Your task to perform on an android device: toggle priority inbox in the gmail app Image 0: 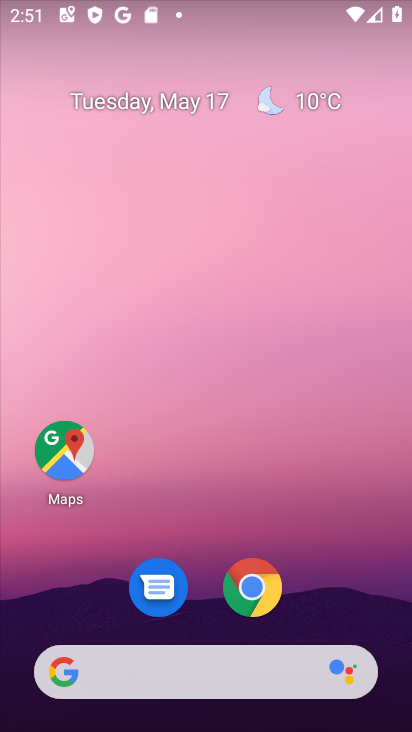
Step 0: drag from (321, 569) to (238, 59)
Your task to perform on an android device: toggle priority inbox in the gmail app Image 1: 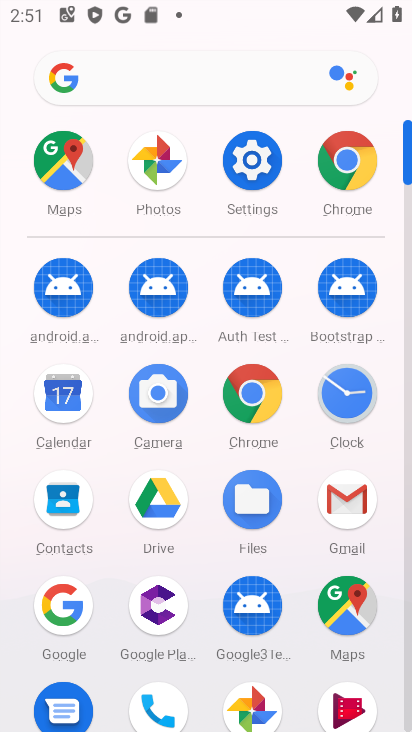
Step 1: drag from (0, 528) to (3, 238)
Your task to perform on an android device: toggle priority inbox in the gmail app Image 2: 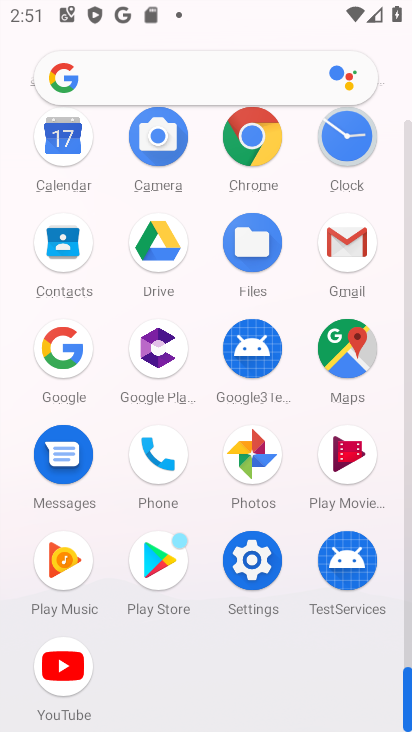
Step 2: click (349, 233)
Your task to perform on an android device: toggle priority inbox in the gmail app Image 3: 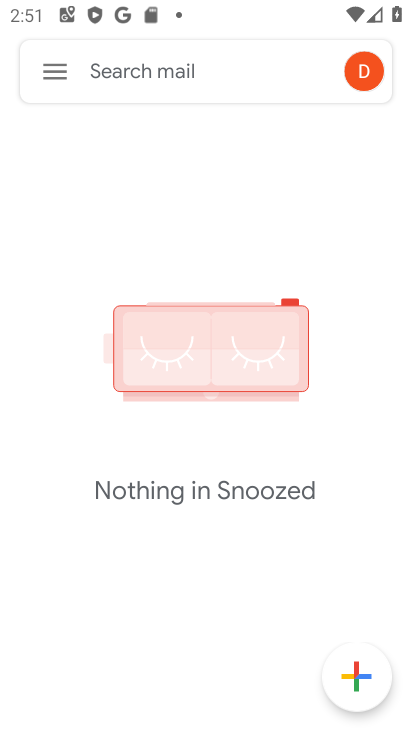
Step 3: click (56, 69)
Your task to perform on an android device: toggle priority inbox in the gmail app Image 4: 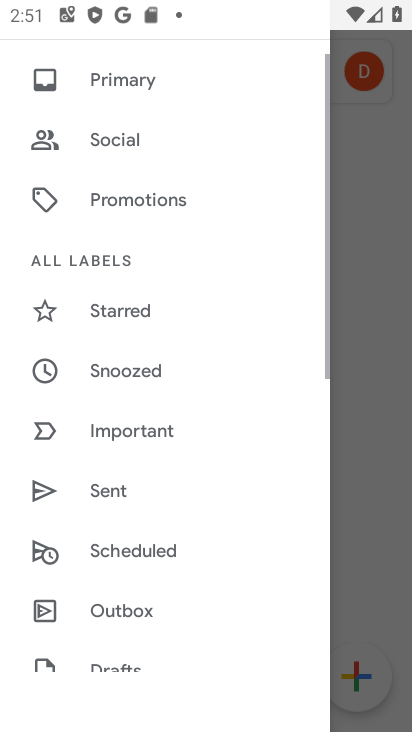
Step 4: drag from (133, 630) to (182, 94)
Your task to perform on an android device: toggle priority inbox in the gmail app Image 5: 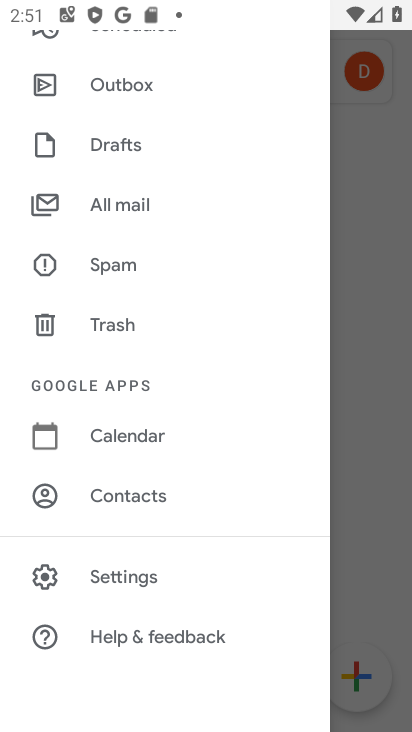
Step 5: click (117, 566)
Your task to perform on an android device: toggle priority inbox in the gmail app Image 6: 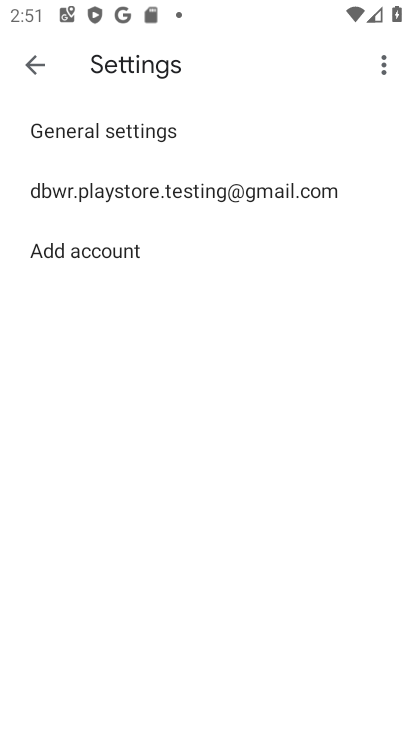
Step 6: click (169, 189)
Your task to perform on an android device: toggle priority inbox in the gmail app Image 7: 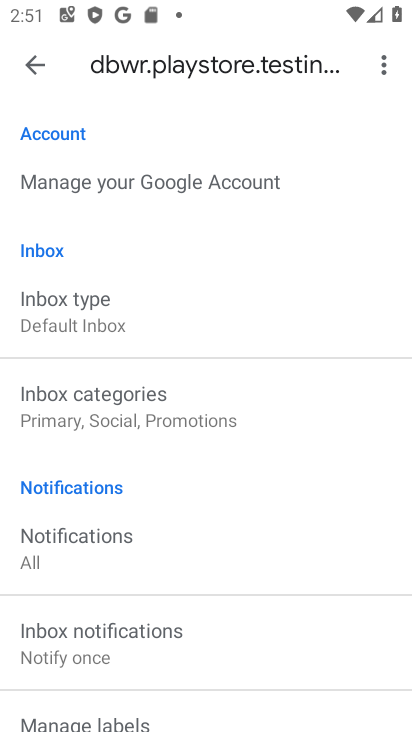
Step 7: click (139, 318)
Your task to perform on an android device: toggle priority inbox in the gmail app Image 8: 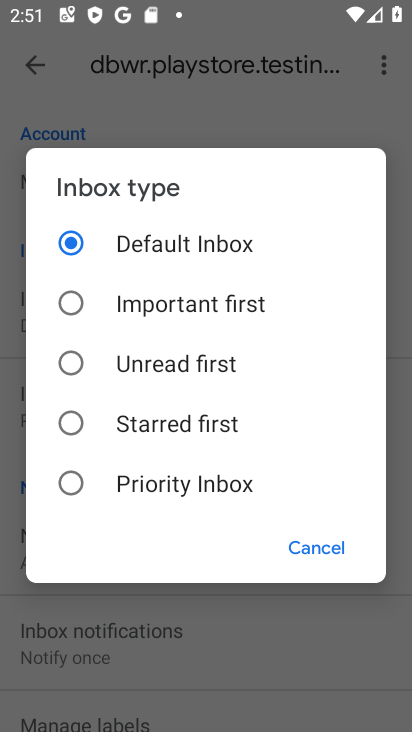
Step 8: click (138, 489)
Your task to perform on an android device: toggle priority inbox in the gmail app Image 9: 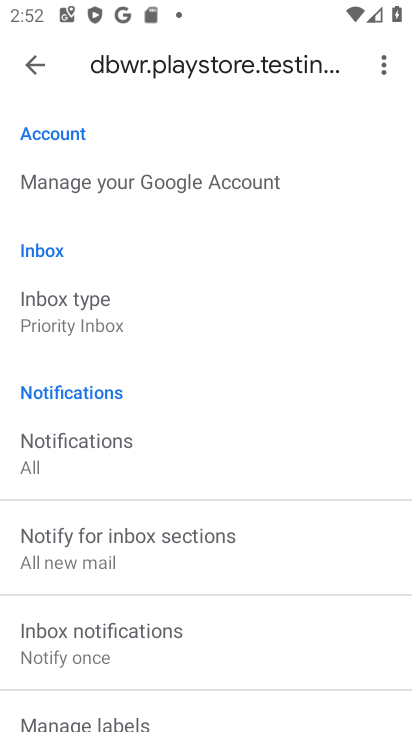
Step 9: task complete